Your task to perform on an android device: Open location settings Image 0: 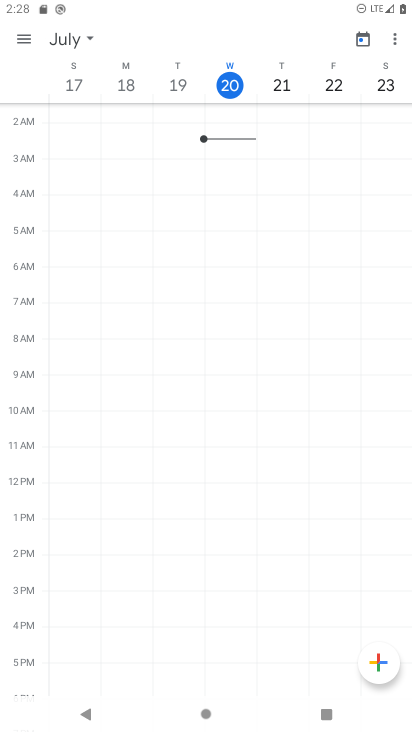
Step 0: press home button
Your task to perform on an android device: Open location settings Image 1: 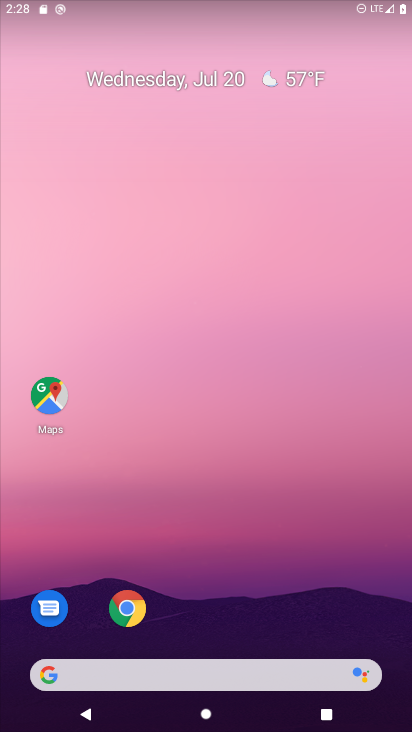
Step 1: drag from (255, 706) to (246, 185)
Your task to perform on an android device: Open location settings Image 2: 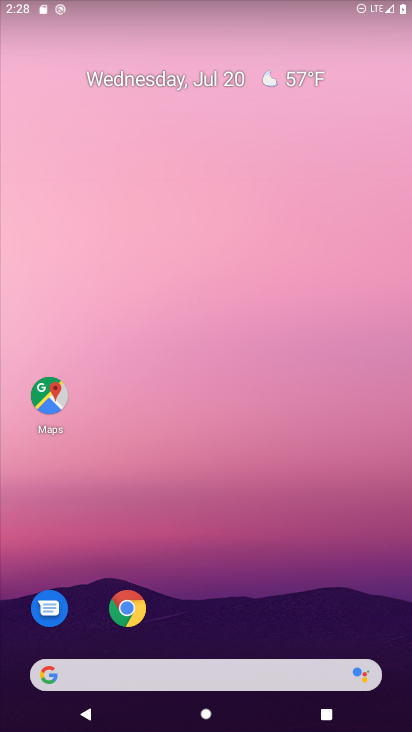
Step 2: drag from (221, 726) to (195, 158)
Your task to perform on an android device: Open location settings Image 3: 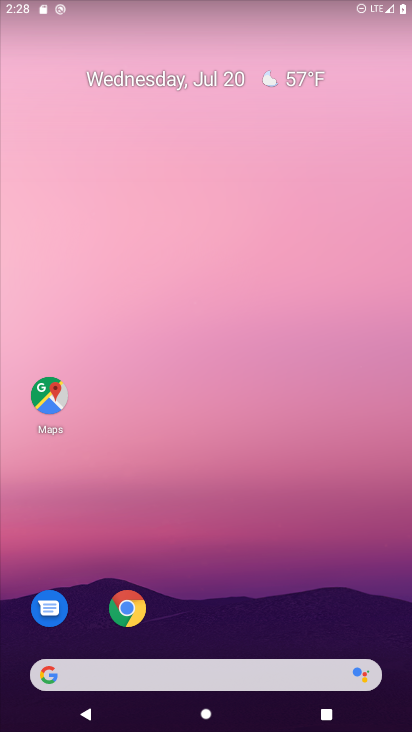
Step 3: drag from (233, 704) to (159, 141)
Your task to perform on an android device: Open location settings Image 4: 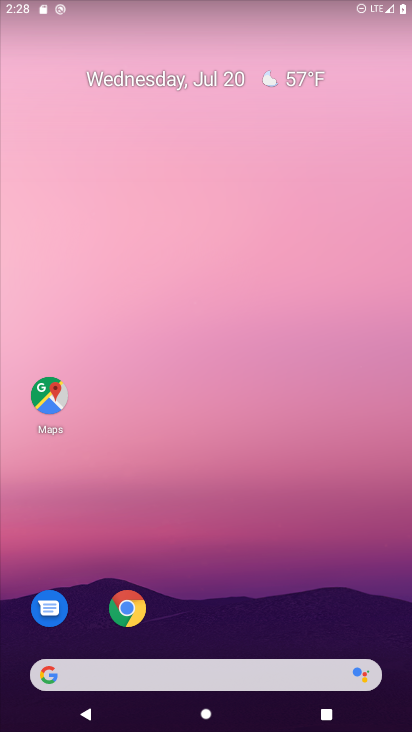
Step 4: drag from (227, 713) to (229, 201)
Your task to perform on an android device: Open location settings Image 5: 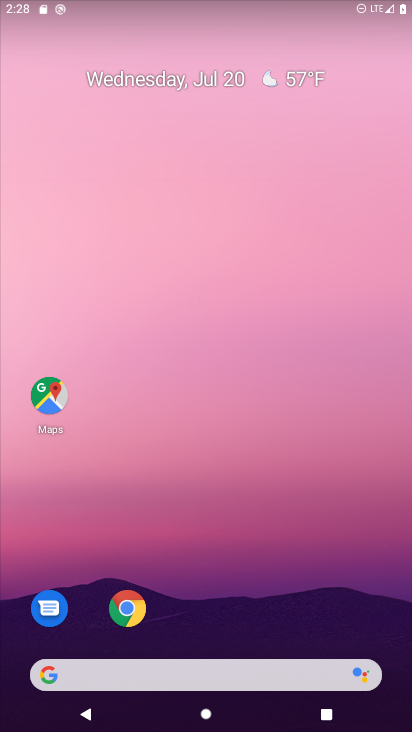
Step 5: drag from (237, 724) to (208, 37)
Your task to perform on an android device: Open location settings Image 6: 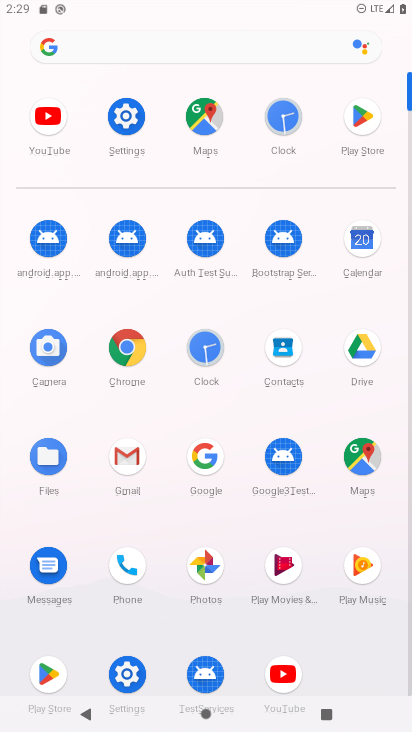
Step 6: click (127, 116)
Your task to perform on an android device: Open location settings Image 7: 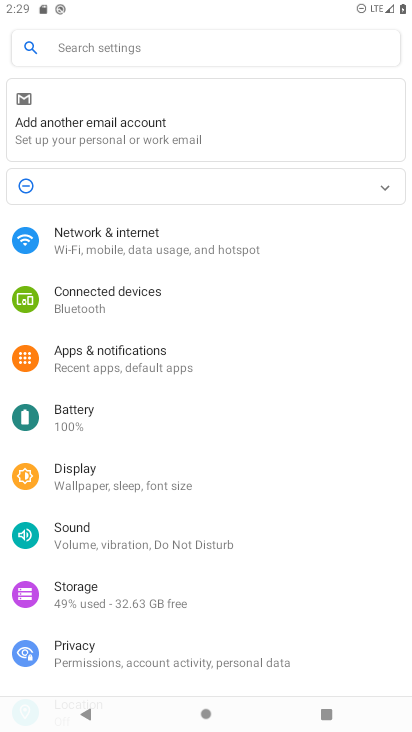
Step 7: drag from (87, 615) to (69, 389)
Your task to perform on an android device: Open location settings Image 8: 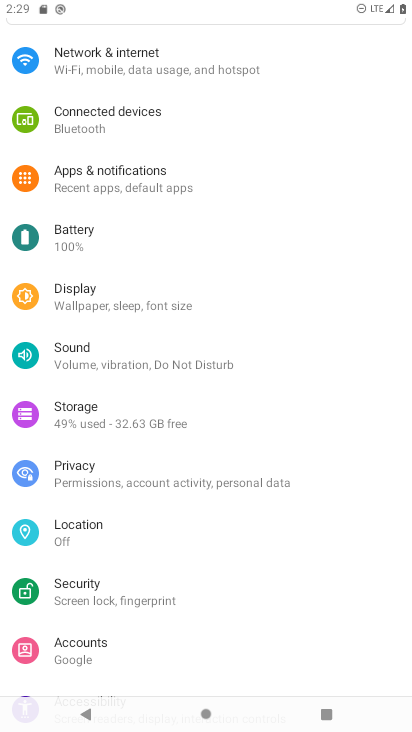
Step 8: click (67, 523)
Your task to perform on an android device: Open location settings Image 9: 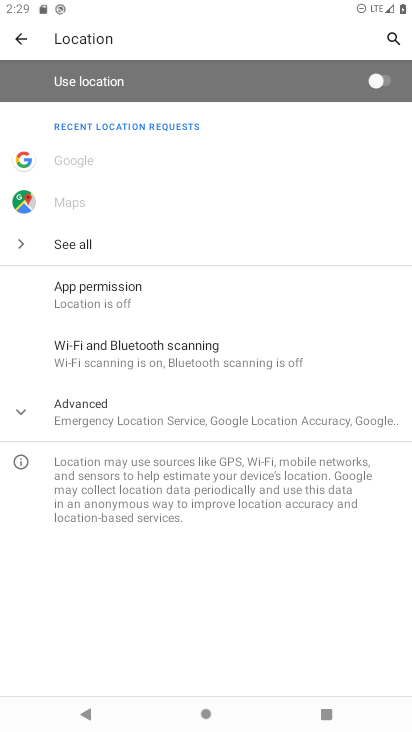
Step 9: task complete